Your task to perform on an android device: Open Android settings Image 0: 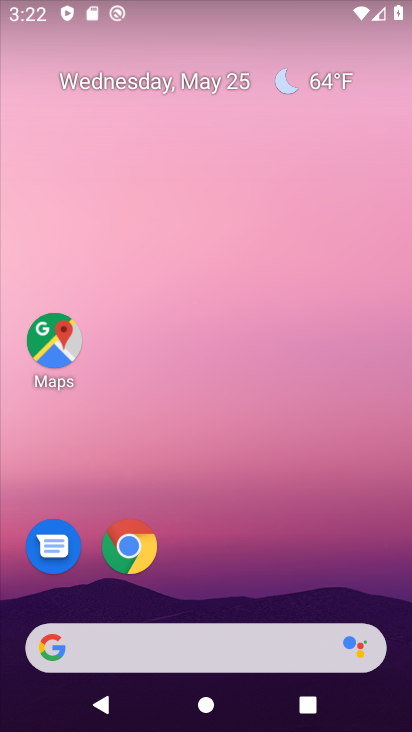
Step 0: drag from (198, 581) to (126, 229)
Your task to perform on an android device: Open Android settings Image 1: 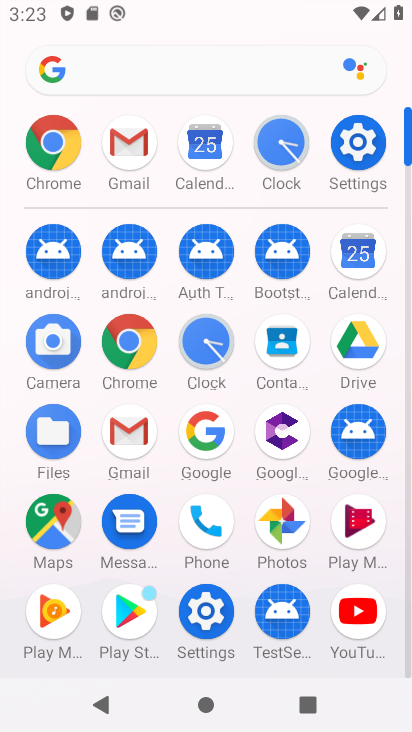
Step 1: click (200, 612)
Your task to perform on an android device: Open Android settings Image 2: 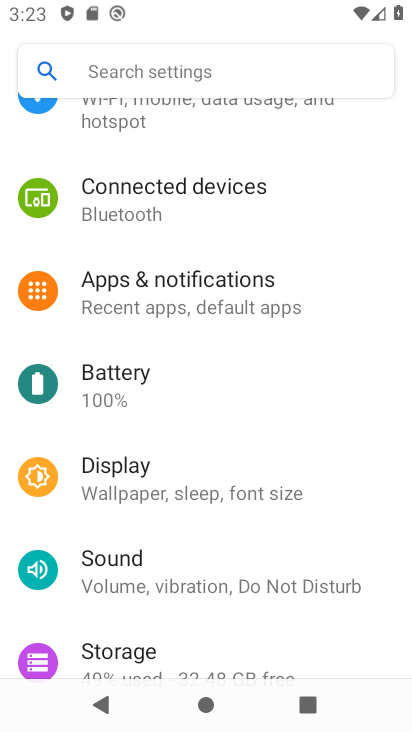
Step 2: drag from (212, 614) to (159, 107)
Your task to perform on an android device: Open Android settings Image 3: 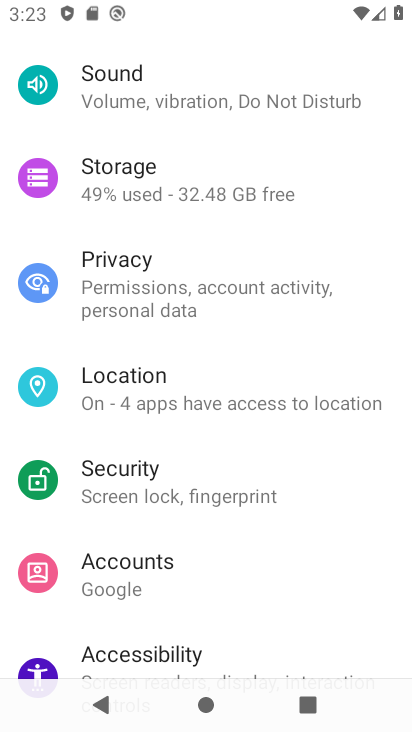
Step 3: drag from (243, 662) to (219, 139)
Your task to perform on an android device: Open Android settings Image 4: 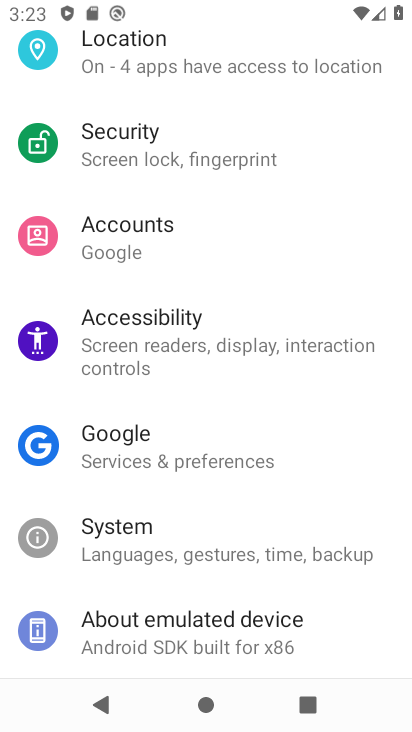
Step 4: click (93, 636)
Your task to perform on an android device: Open Android settings Image 5: 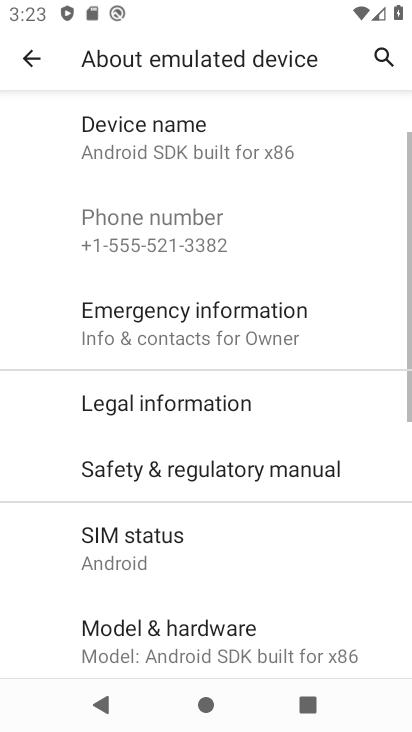
Step 5: drag from (213, 553) to (215, 200)
Your task to perform on an android device: Open Android settings Image 6: 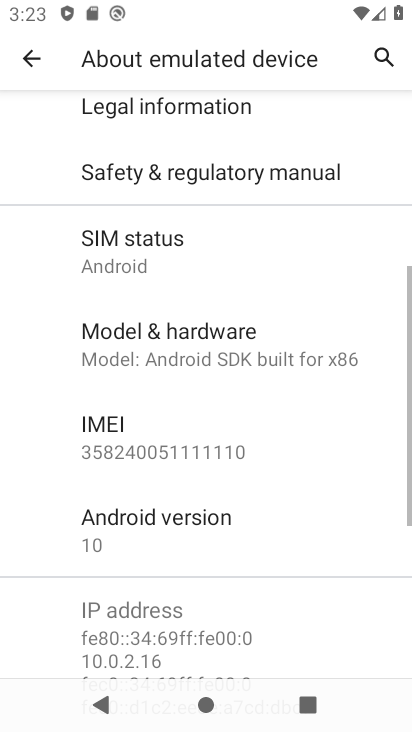
Step 6: click (98, 538)
Your task to perform on an android device: Open Android settings Image 7: 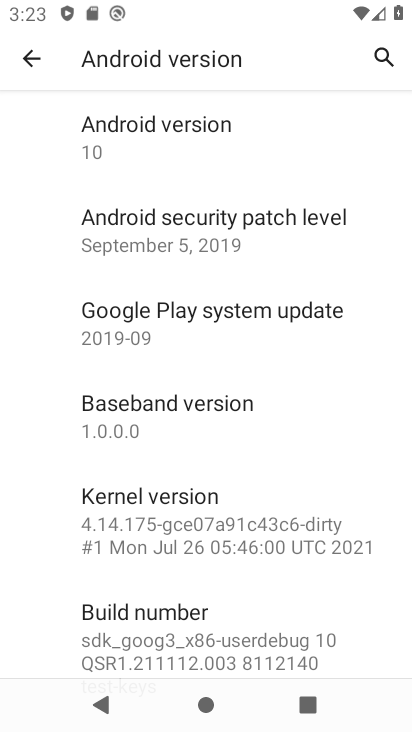
Step 7: task complete